Your task to perform on an android device: turn off smart reply in the gmail app Image 0: 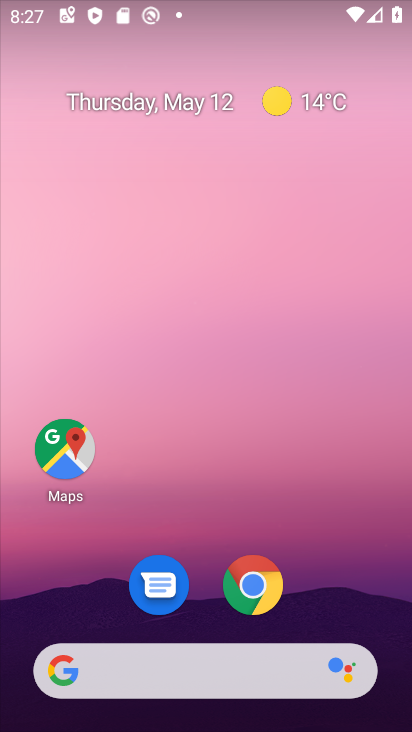
Step 0: drag from (207, 449) to (167, 0)
Your task to perform on an android device: turn off smart reply in the gmail app Image 1: 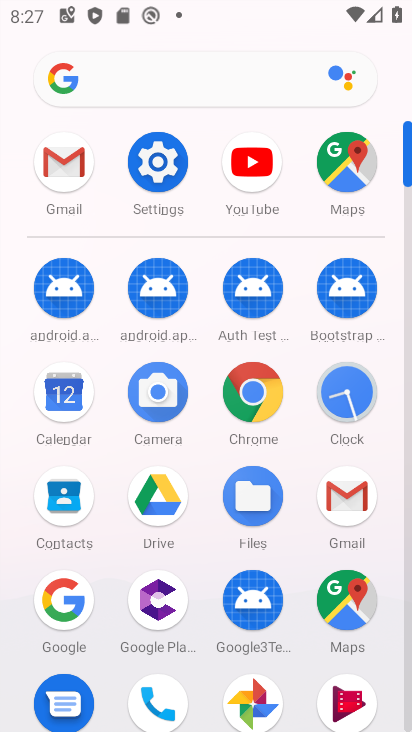
Step 1: click (76, 168)
Your task to perform on an android device: turn off smart reply in the gmail app Image 2: 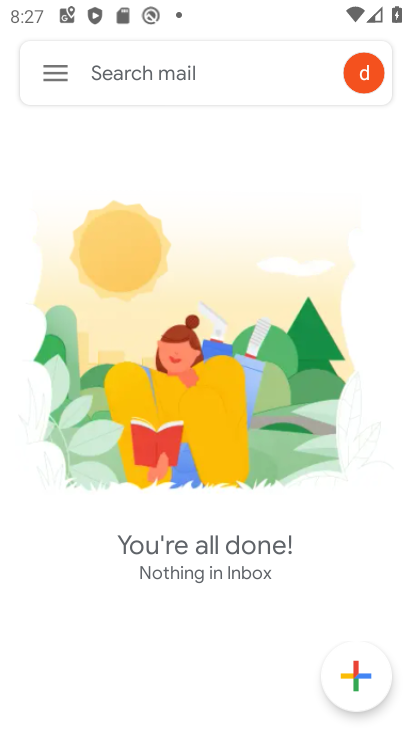
Step 2: click (57, 69)
Your task to perform on an android device: turn off smart reply in the gmail app Image 3: 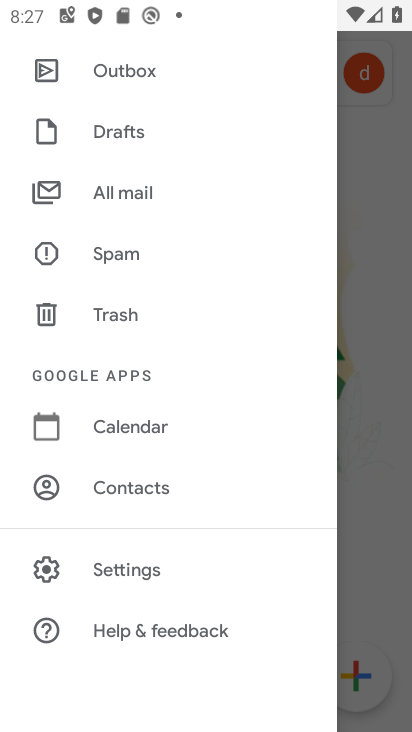
Step 3: click (152, 564)
Your task to perform on an android device: turn off smart reply in the gmail app Image 4: 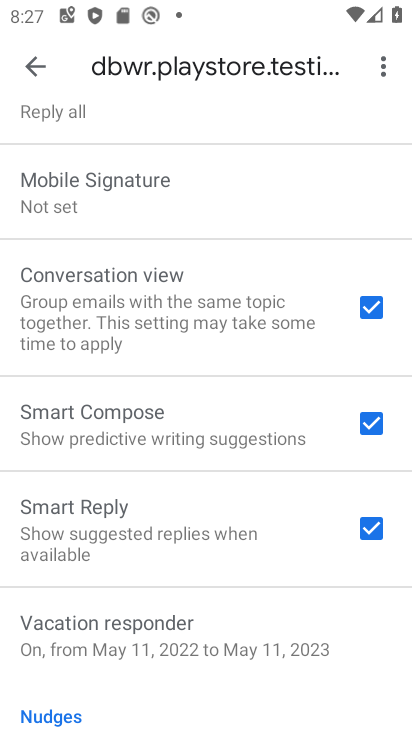
Step 4: click (373, 516)
Your task to perform on an android device: turn off smart reply in the gmail app Image 5: 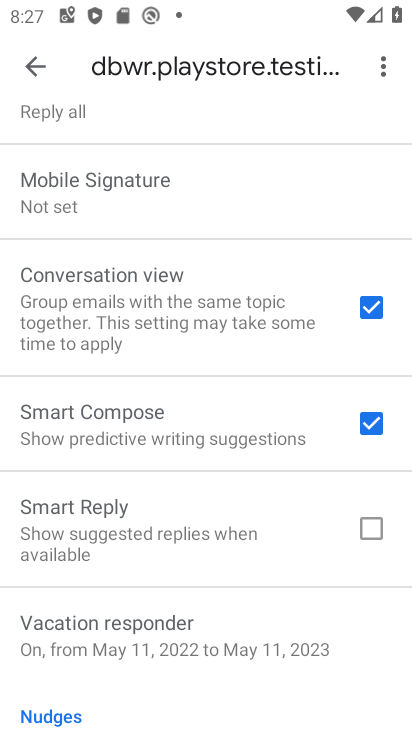
Step 5: task complete